Your task to perform on an android device: Go to CNN.com Image 0: 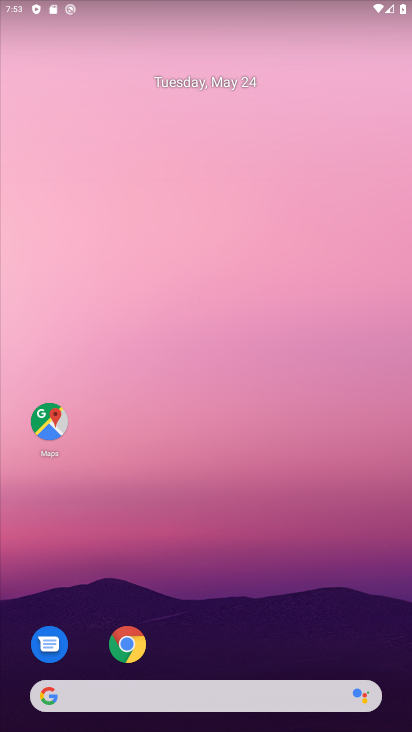
Step 0: click (133, 649)
Your task to perform on an android device: Go to CNN.com Image 1: 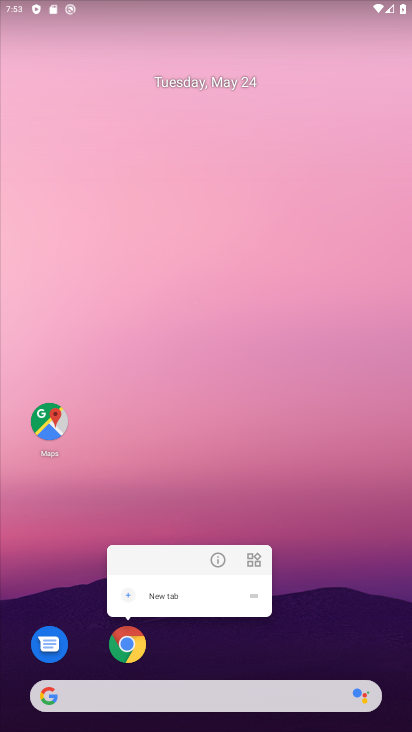
Step 1: click (133, 648)
Your task to perform on an android device: Go to CNN.com Image 2: 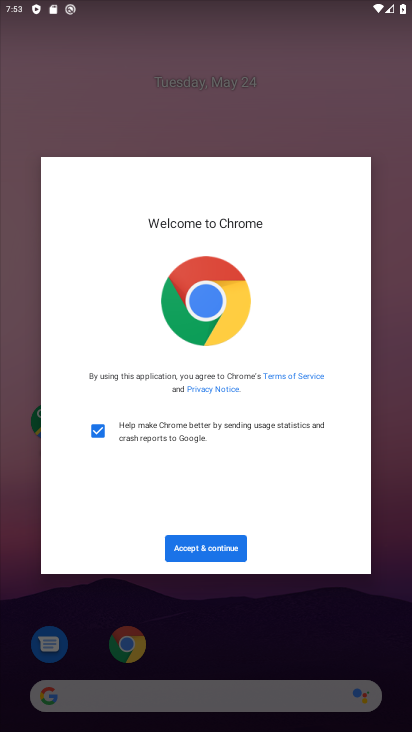
Step 2: click (187, 544)
Your task to perform on an android device: Go to CNN.com Image 3: 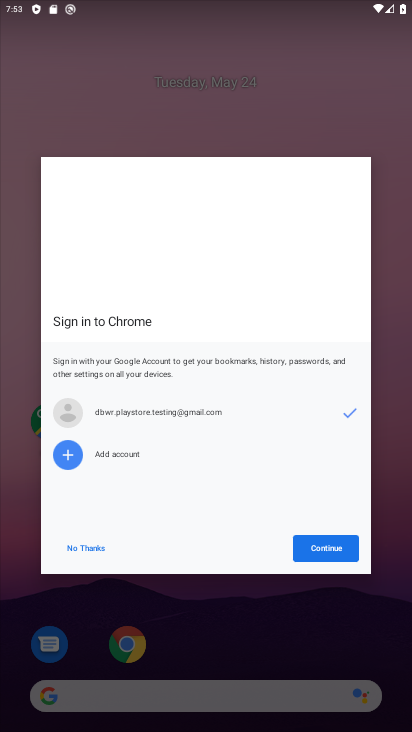
Step 3: click (325, 559)
Your task to perform on an android device: Go to CNN.com Image 4: 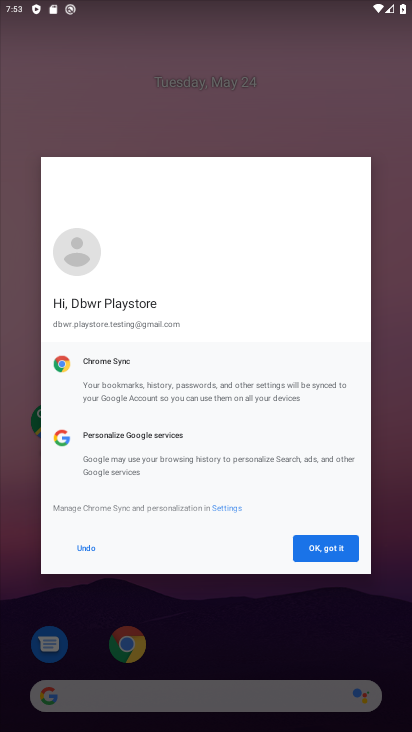
Step 4: click (325, 559)
Your task to perform on an android device: Go to CNN.com Image 5: 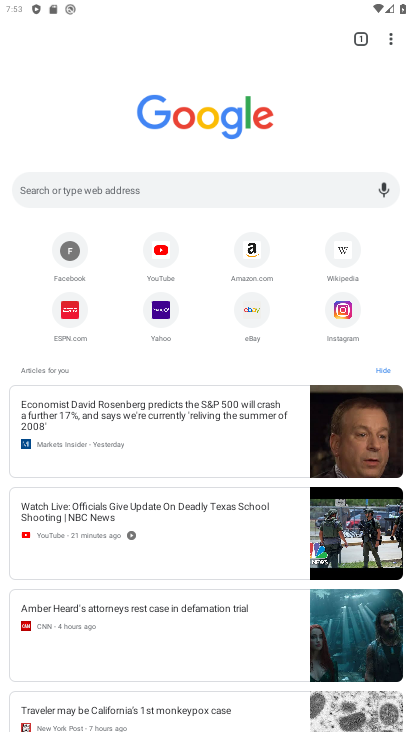
Step 5: click (182, 179)
Your task to perform on an android device: Go to CNN.com Image 6: 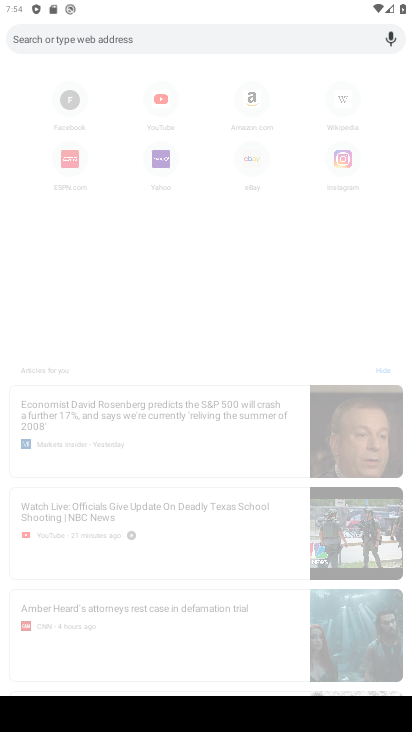
Step 6: type "cnn.com"
Your task to perform on an android device: Go to CNN.com Image 7: 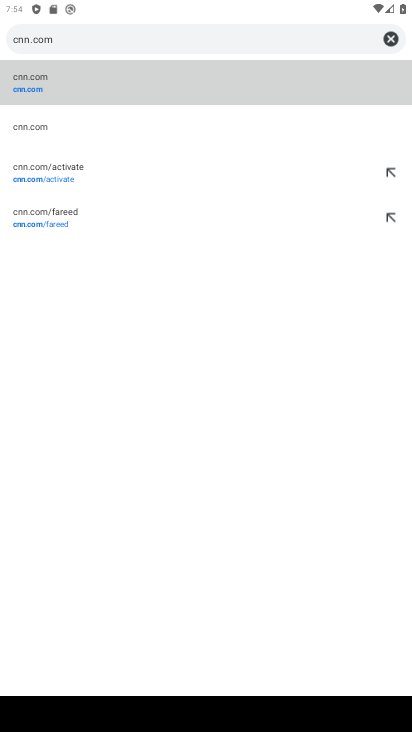
Step 7: click (93, 93)
Your task to perform on an android device: Go to CNN.com Image 8: 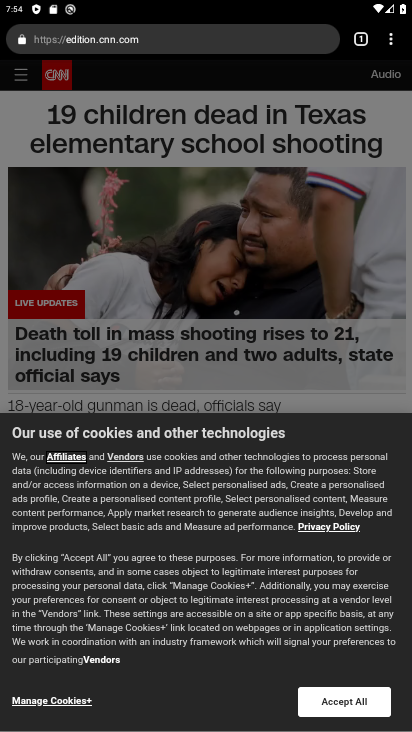
Step 8: task complete